Your task to perform on an android device: toggle pop-ups in chrome Image 0: 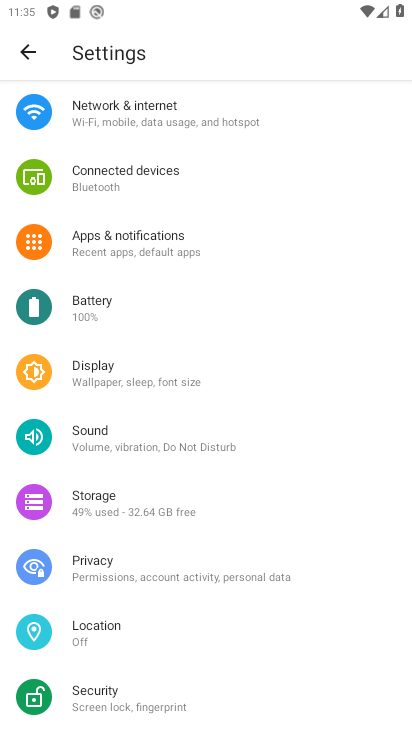
Step 0: press home button
Your task to perform on an android device: toggle pop-ups in chrome Image 1: 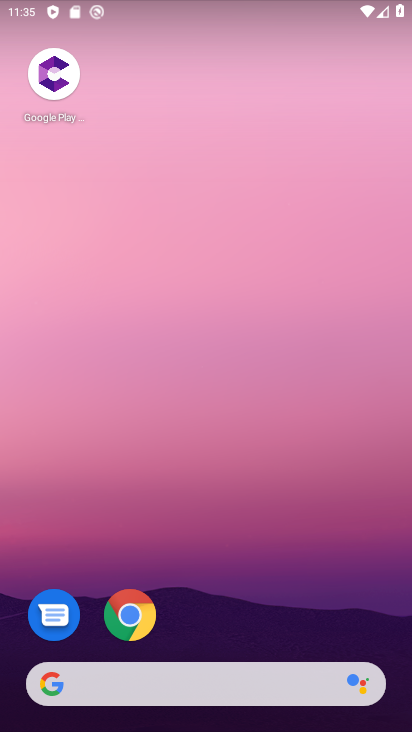
Step 1: click (129, 620)
Your task to perform on an android device: toggle pop-ups in chrome Image 2: 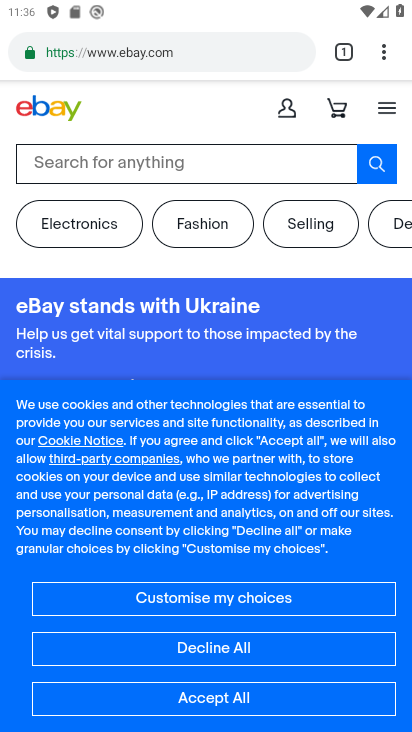
Step 2: drag from (388, 57) to (203, 628)
Your task to perform on an android device: toggle pop-ups in chrome Image 3: 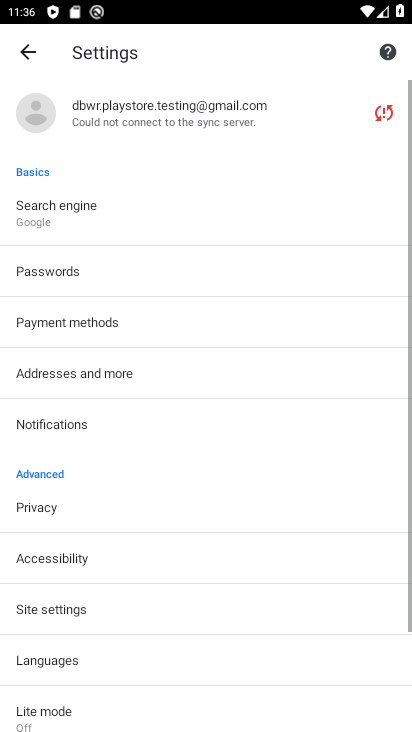
Step 3: drag from (207, 544) to (288, 172)
Your task to perform on an android device: toggle pop-ups in chrome Image 4: 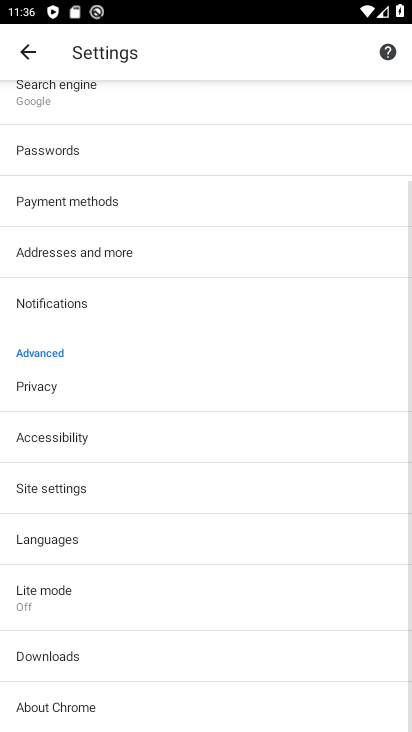
Step 4: click (140, 487)
Your task to perform on an android device: toggle pop-ups in chrome Image 5: 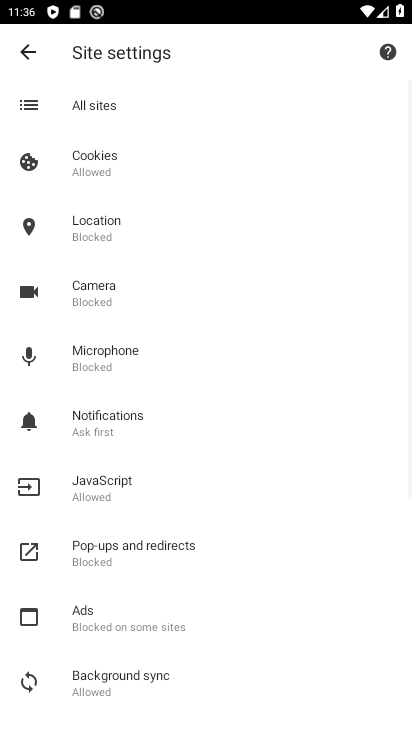
Step 5: drag from (162, 652) to (216, 238)
Your task to perform on an android device: toggle pop-ups in chrome Image 6: 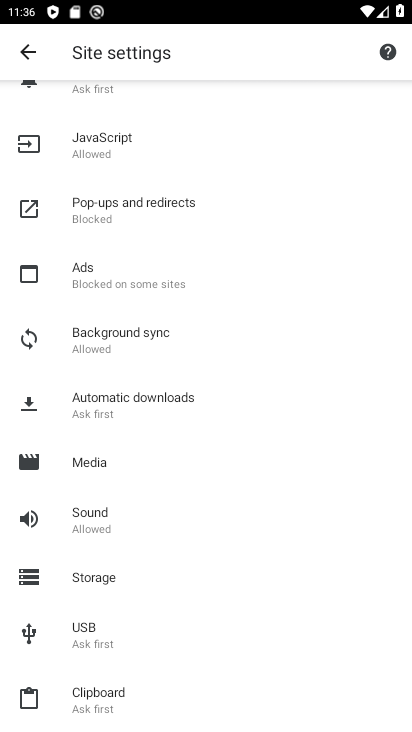
Step 6: click (141, 197)
Your task to perform on an android device: toggle pop-ups in chrome Image 7: 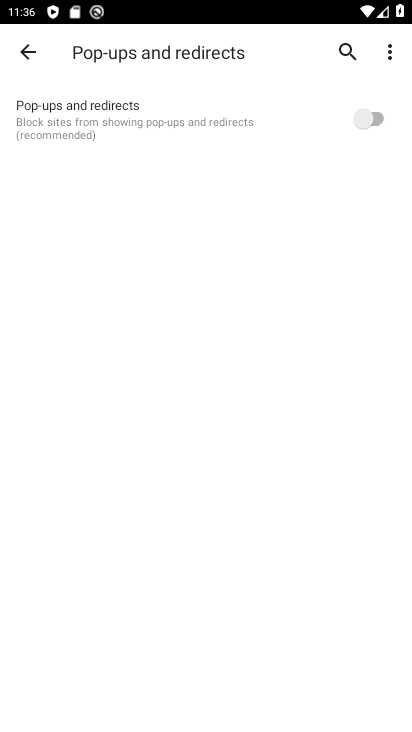
Step 7: click (373, 124)
Your task to perform on an android device: toggle pop-ups in chrome Image 8: 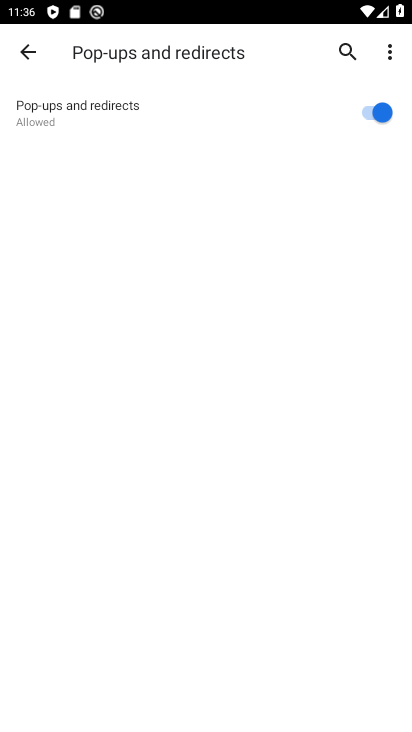
Step 8: task complete